Your task to perform on an android device: turn off notifications in google photos Image 0: 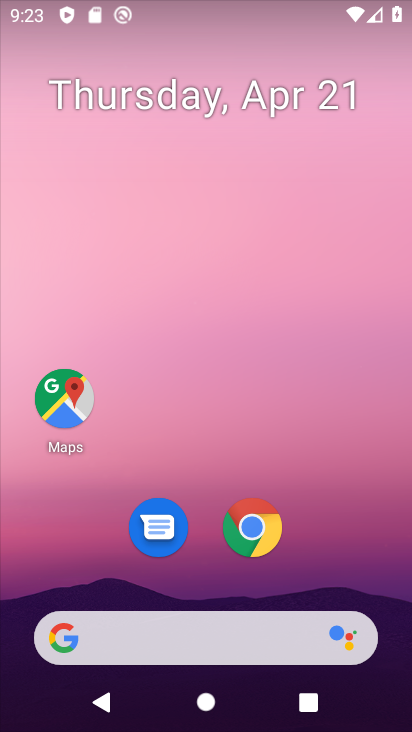
Step 0: drag from (357, 586) to (259, 9)
Your task to perform on an android device: turn off notifications in google photos Image 1: 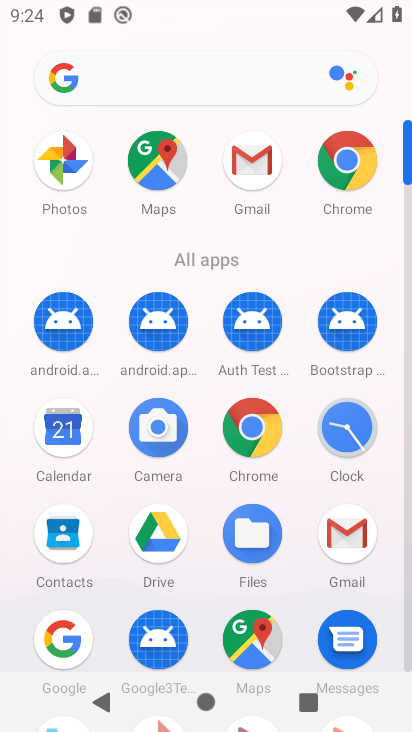
Step 1: click (74, 161)
Your task to perform on an android device: turn off notifications in google photos Image 2: 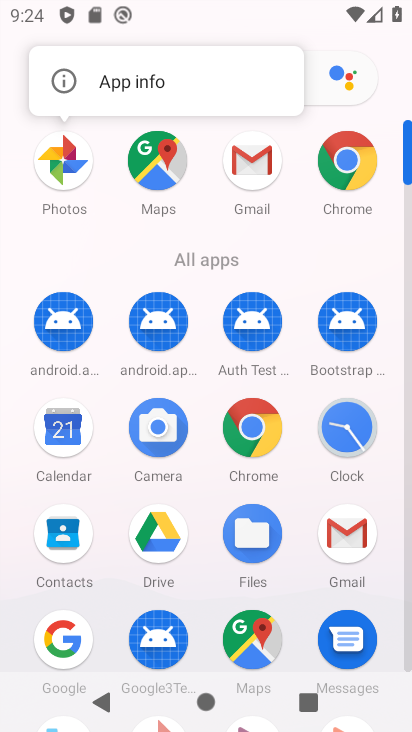
Step 2: click (86, 102)
Your task to perform on an android device: turn off notifications in google photos Image 3: 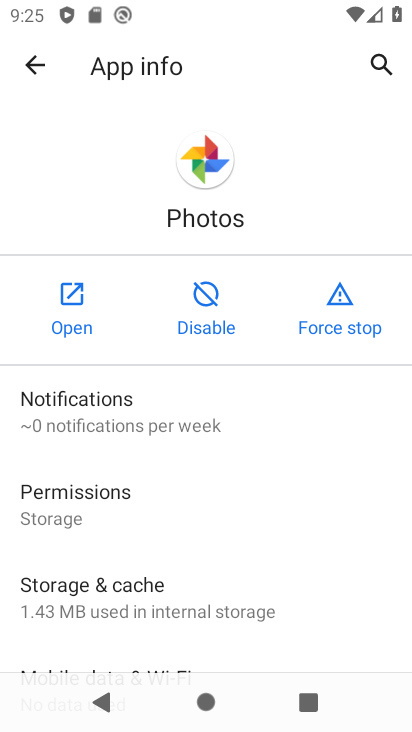
Step 3: click (91, 412)
Your task to perform on an android device: turn off notifications in google photos Image 4: 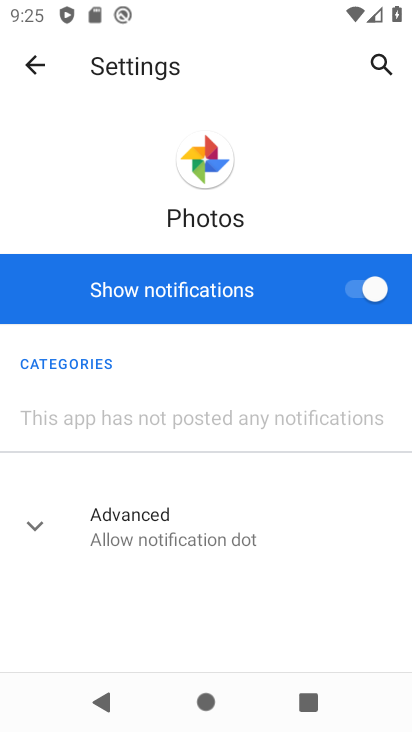
Step 4: click (351, 299)
Your task to perform on an android device: turn off notifications in google photos Image 5: 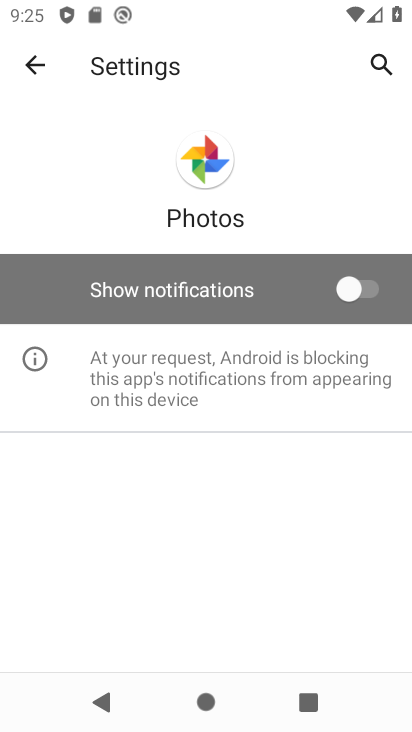
Step 5: task complete